Your task to perform on an android device: search for starred emails in the gmail app Image 0: 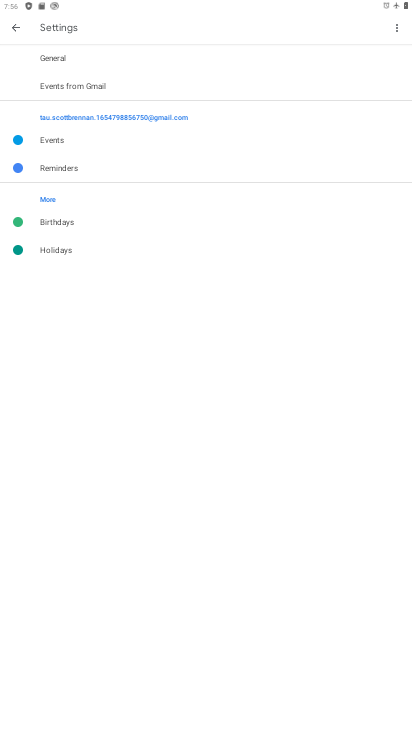
Step 0: press home button
Your task to perform on an android device: search for starred emails in the gmail app Image 1: 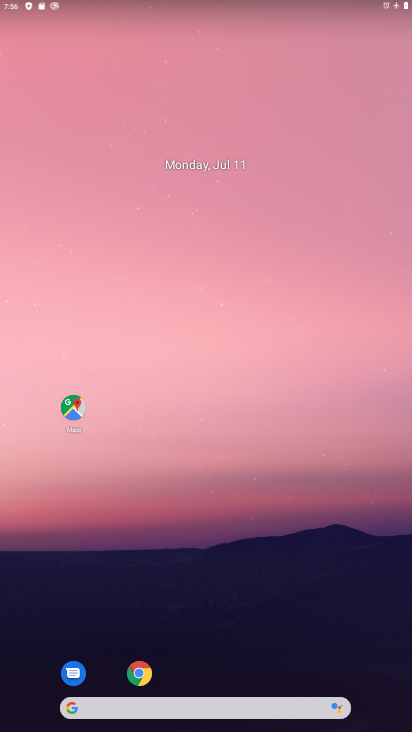
Step 1: drag from (315, 606) to (215, 134)
Your task to perform on an android device: search for starred emails in the gmail app Image 2: 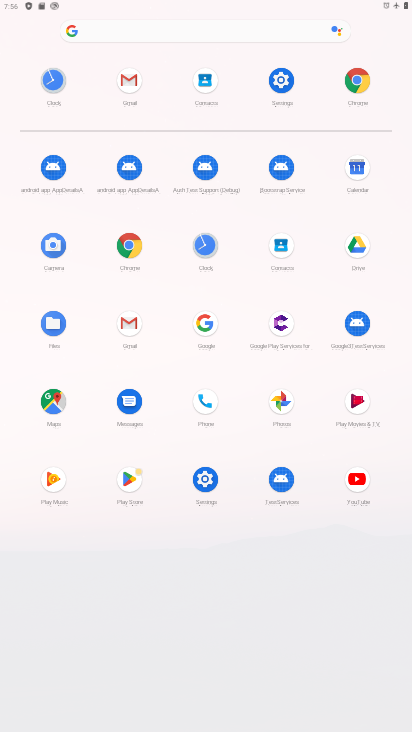
Step 2: click (128, 77)
Your task to perform on an android device: search for starred emails in the gmail app Image 3: 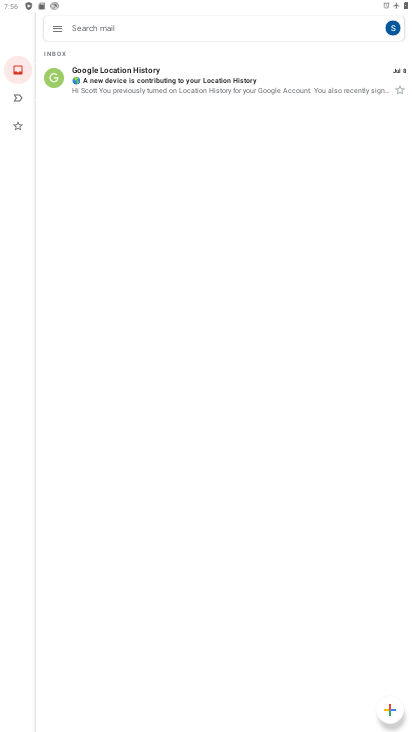
Step 3: click (53, 31)
Your task to perform on an android device: search for starred emails in the gmail app Image 4: 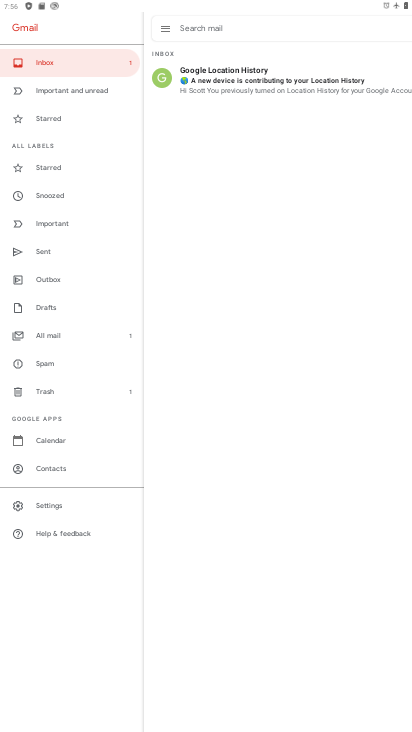
Step 4: click (53, 168)
Your task to perform on an android device: search for starred emails in the gmail app Image 5: 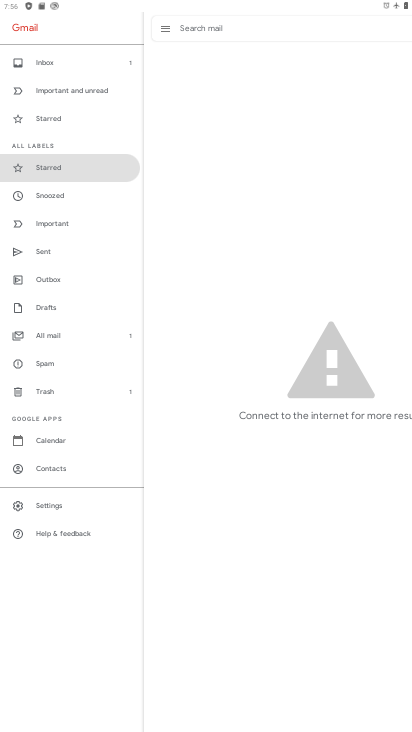
Step 5: task complete